Your task to perform on an android device: change timer sound Image 0: 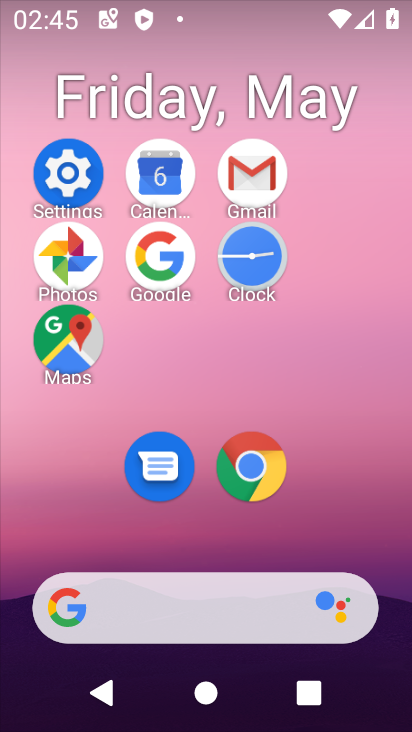
Step 0: click (251, 264)
Your task to perform on an android device: change timer sound Image 1: 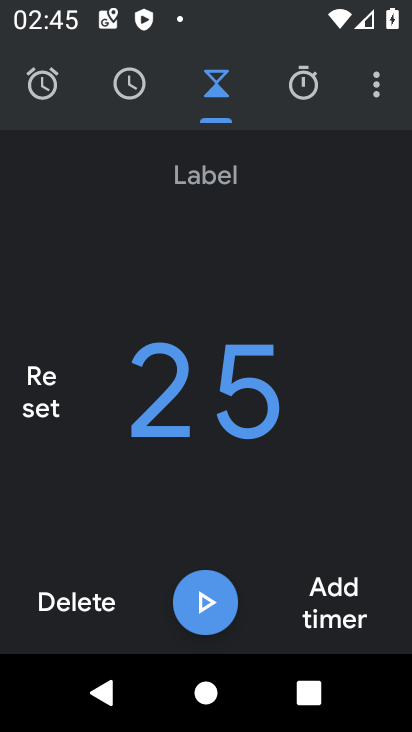
Step 1: click (368, 92)
Your task to perform on an android device: change timer sound Image 2: 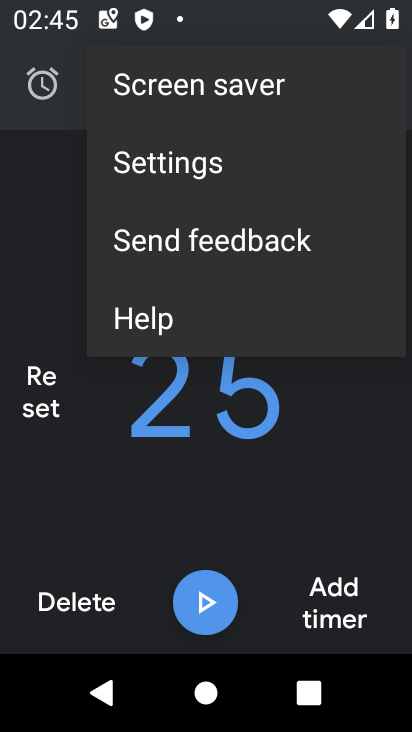
Step 2: click (223, 179)
Your task to perform on an android device: change timer sound Image 3: 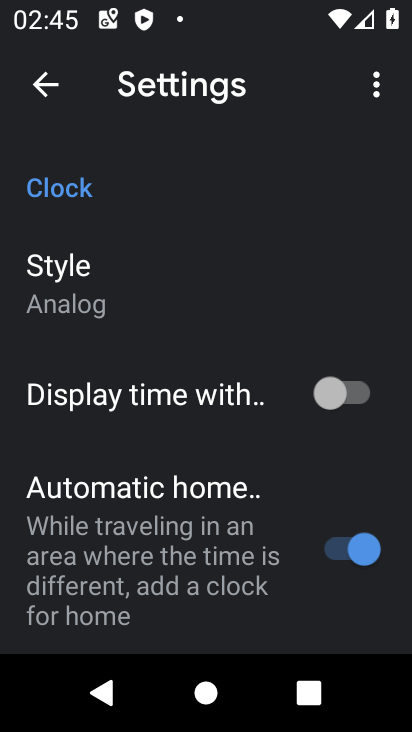
Step 3: drag from (247, 513) to (234, 131)
Your task to perform on an android device: change timer sound Image 4: 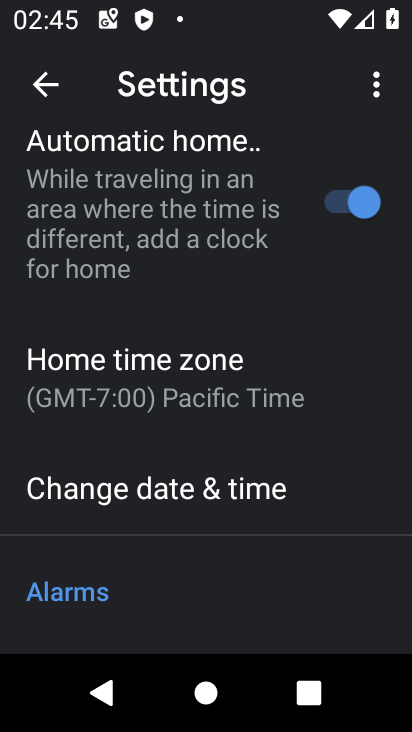
Step 4: drag from (213, 565) to (226, 167)
Your task to perform on an android device: change timer sound Image 5: 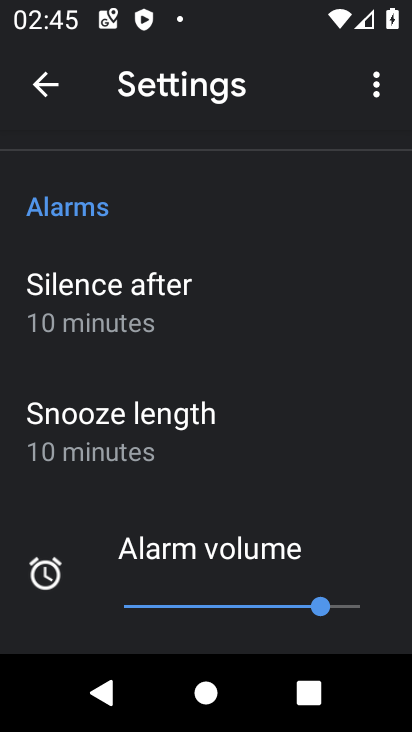
Step 5: drag from (297, 502) to (236, 157)
Your task to perform on an android device: change timer sound Image 6: 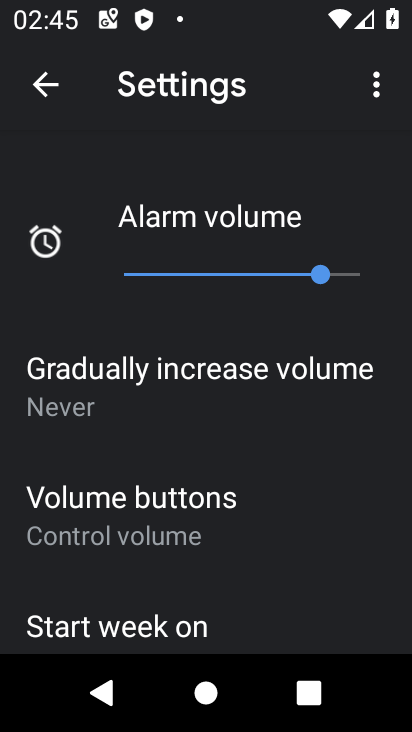
Step 6: drag from (245, 155) to (279, 531)
Your task to perform on an android device: change timer sound Image 7: 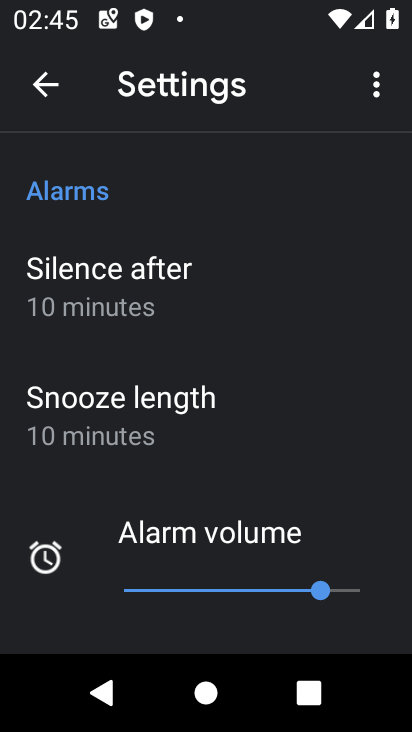
Step 7: drag from (276, 456) to (237, 158)
Your task to perform on an android device: change timer sound Image 8: 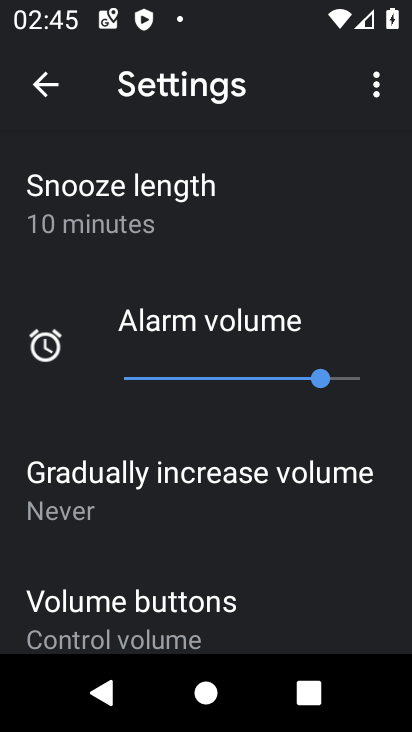
Step 8: drag from (273, 530) to (267, 176)
Your task to perform on an android device: change timer sound Image 9: 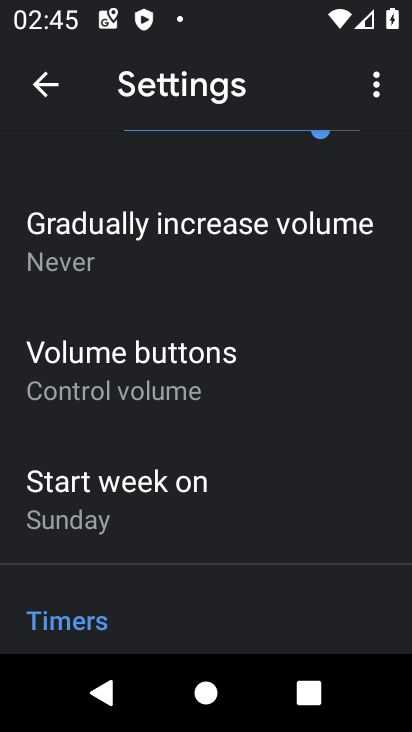
Step 9: drag from (254, 561) to (241, 157)
Your task to perform on an android device: change timer sound Image 10: 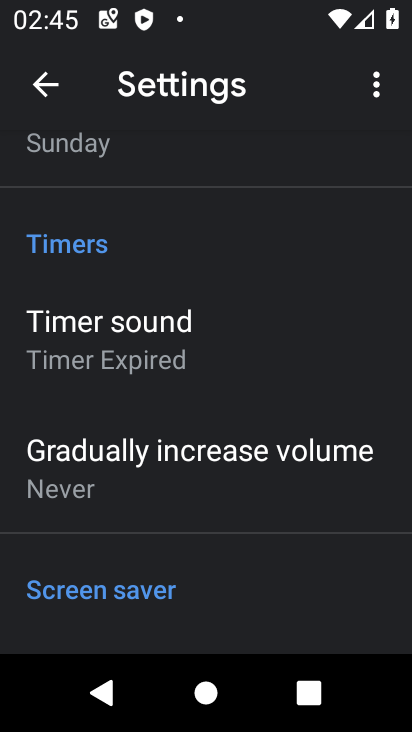
Step 10: click (203, 344)
Your task to perform on an android device: change timer sound Image 11: 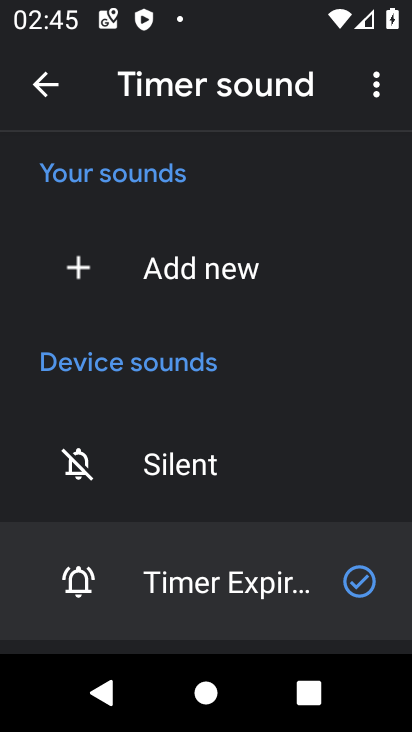
Step 11: drag from (310, 488) to (303, 171)
Your task to perform on an android device: change timer sound Image 12: 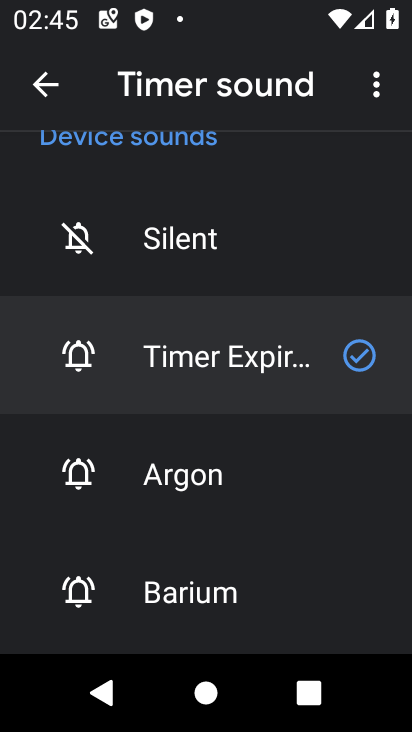
Step 12: click (217, 471)
Your task to perform on an android device: change timer sound Image 13: 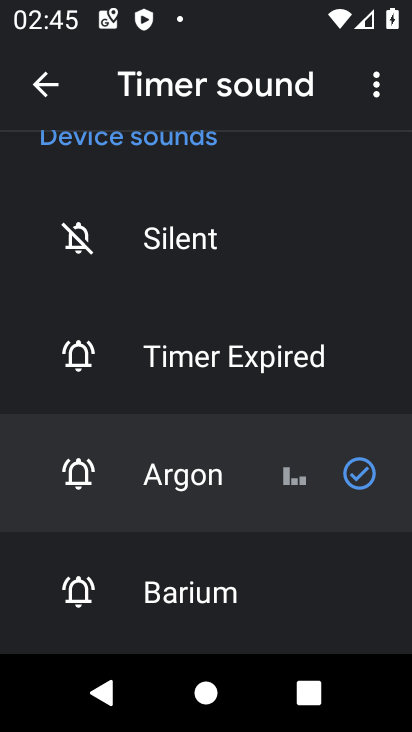
Step 13: task complete